Your task to perform on an android device: Is it going to rain today? Image 0: 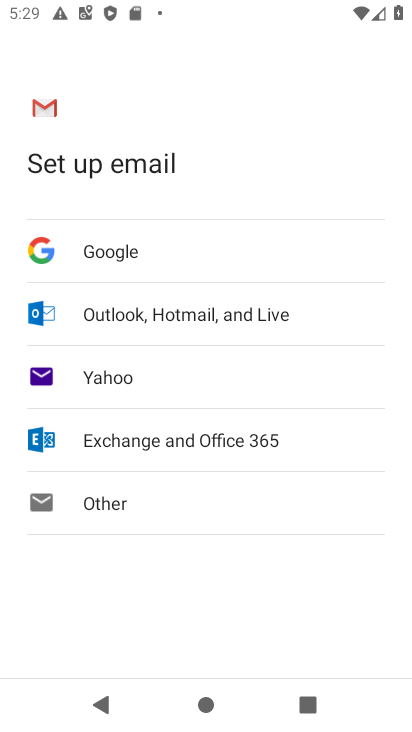
Step 0: press back button
Your task to perform on an android device: Is it going to rain today? Image 1: 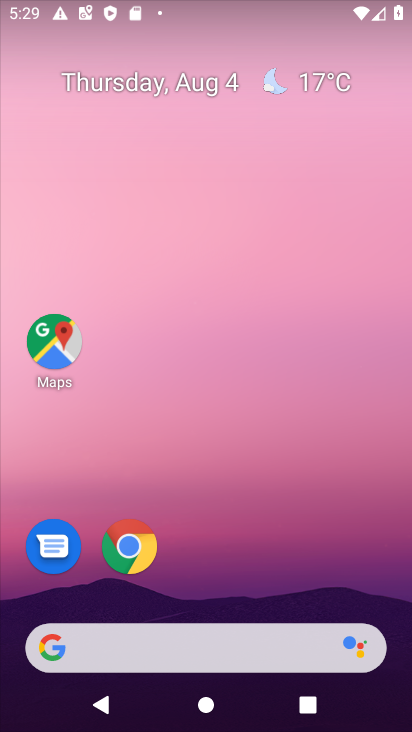
Step 1: drag from (169, 587) to (219, 67)
Your task to perform on an android device: Is it going to rain today? Image 2: 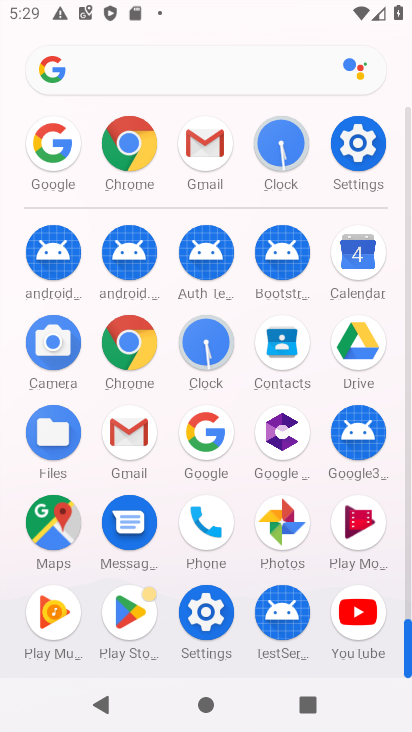
Step 2: click (208, 442)
Your task to perform on an android device: Is it going to rain today? Image 3: 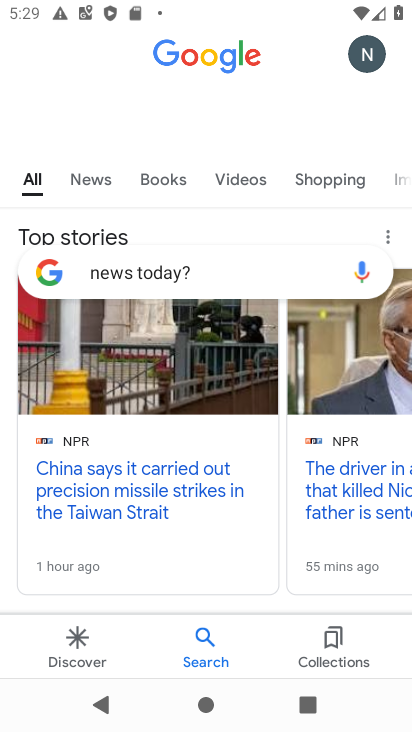
Step 3: click (206, 269)
Your task to perform on an android device: Is it going to rain today? Image 4: 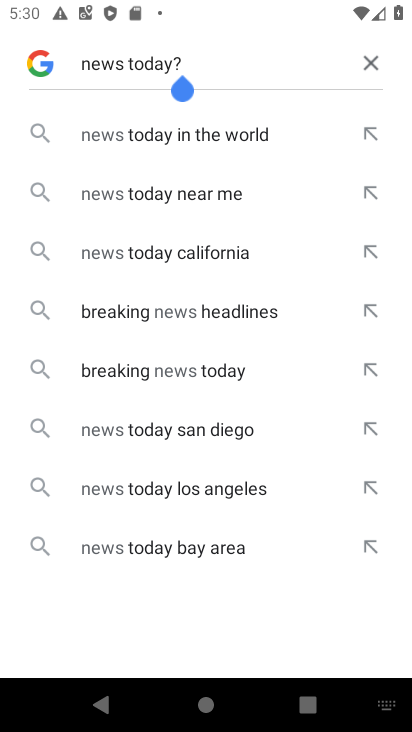
Step 4: click (375, 62)
Your task to perform on an android device: Is it going to rain today? Image 5: 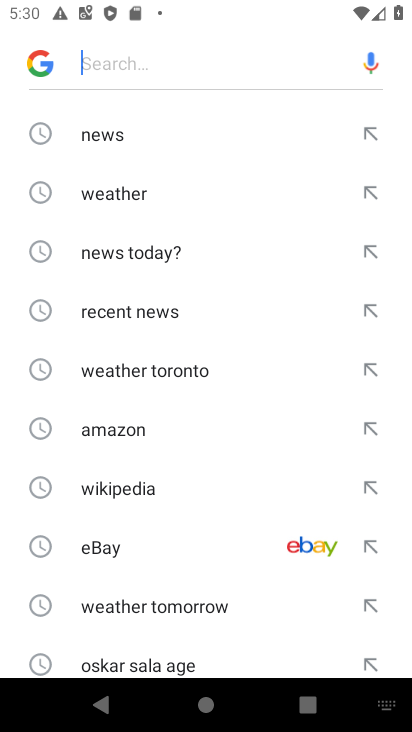
Step 5: click (131, 195)
Your task to perform on an android device: Is it going to rain today? Image 6: 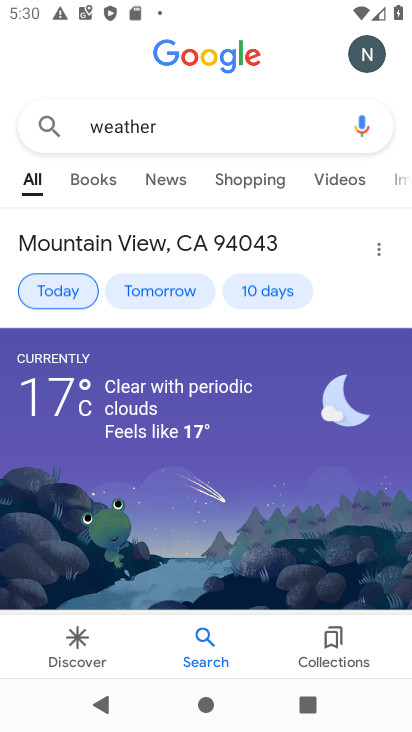
Step 6: task complete